Your task to perform on an android device: Open network settings Image 0: 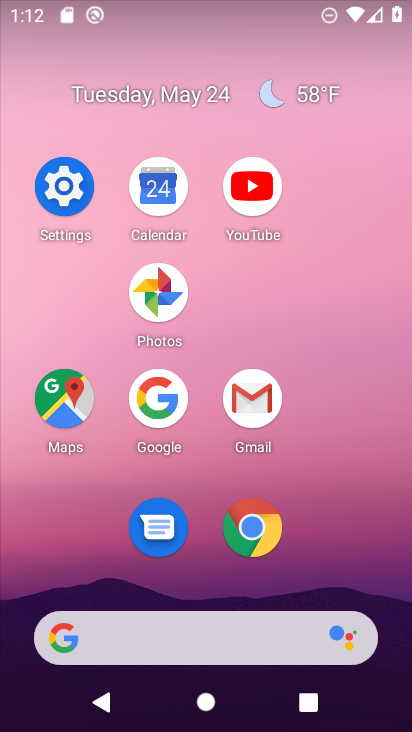
Step 0: click (84, 178)
Your task to perform on an android device: Open network settings Image 1: 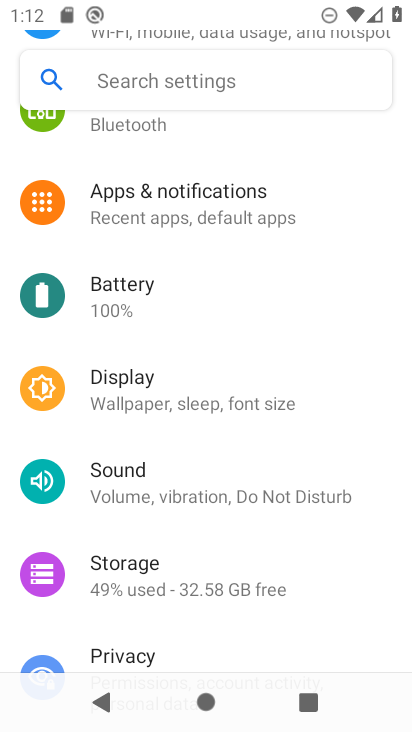
Step 1: drag from (278, 258) to (238, 684)
Your task to perform on an android device: Open network settings Image 2: 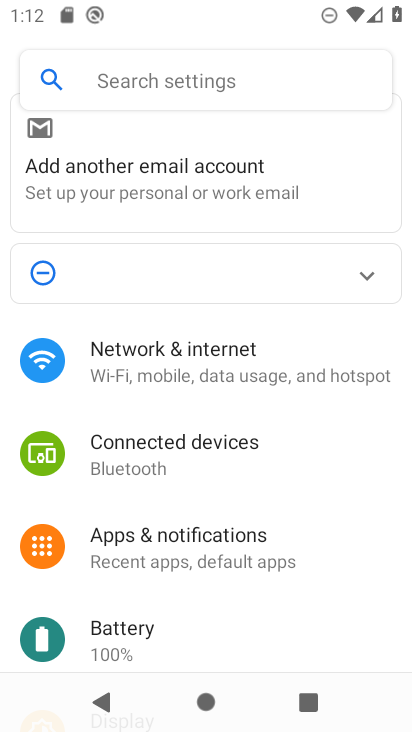
Step 2: click (190, 374)
Your task to perform on an android device: Open network settings Image 3: 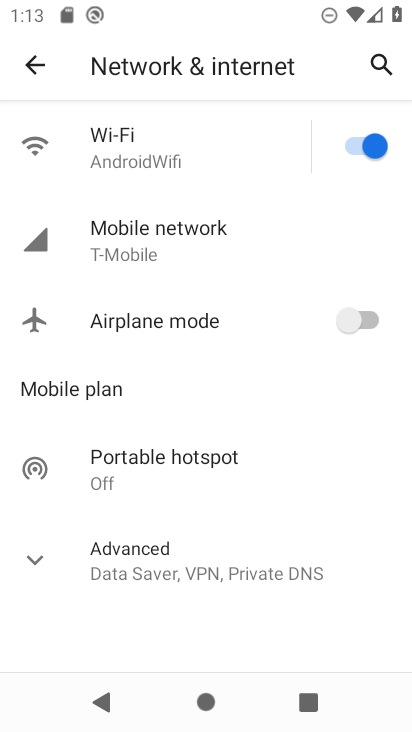
Step 3: click (204, 237)
Your task to perform on an android device: Open network settings Image 4: 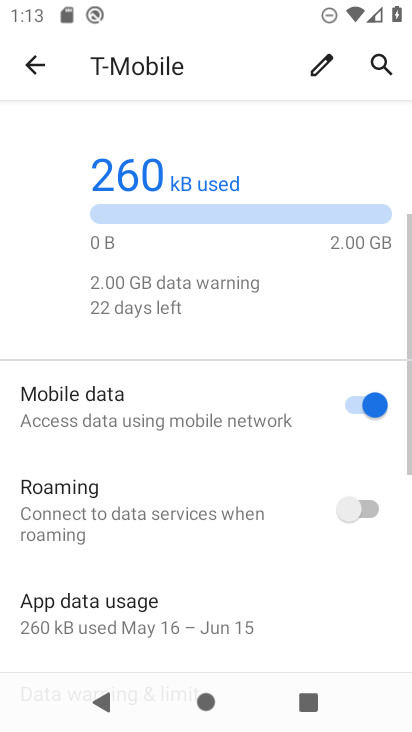
Step 4: task complete